Your task to perform on an android device: open a bookmark in the chrome app Image 0: 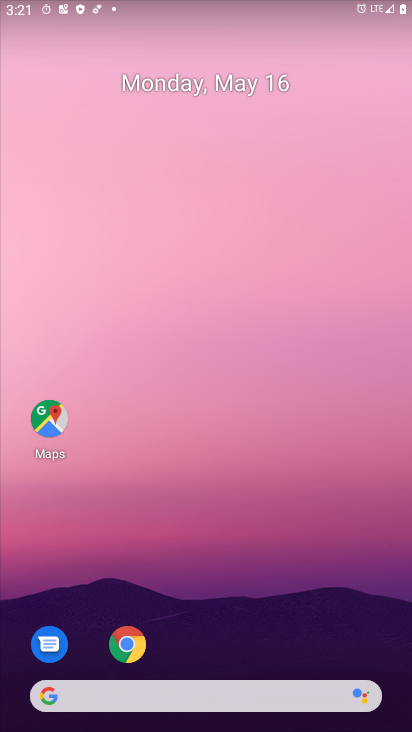
Step 0: drag from (208, 569) to (267, 131)
Your task to perform on an android device: open a bookmark in the chrome app Image 1: 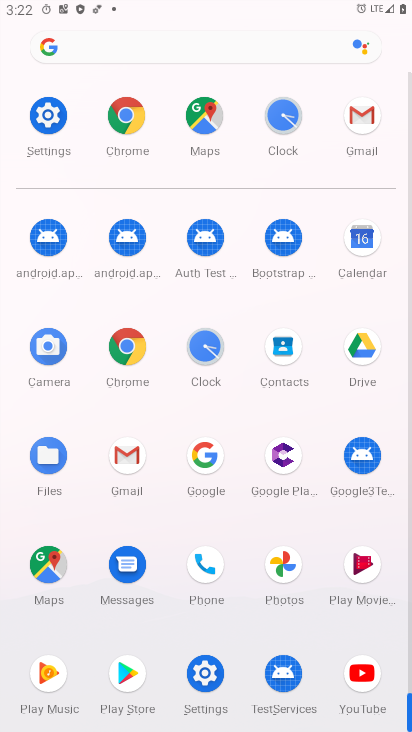
Step 1: click (141, 124)
Your task to perform on an android device: open a bookmark in the chrome app Image 2: 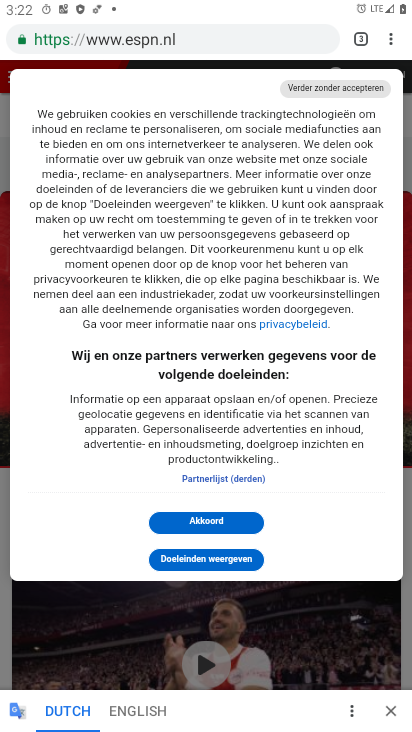
Step 2: click (389, 38)
Your task to perform on an android device: open a bookmark in the chrome app Image 3: 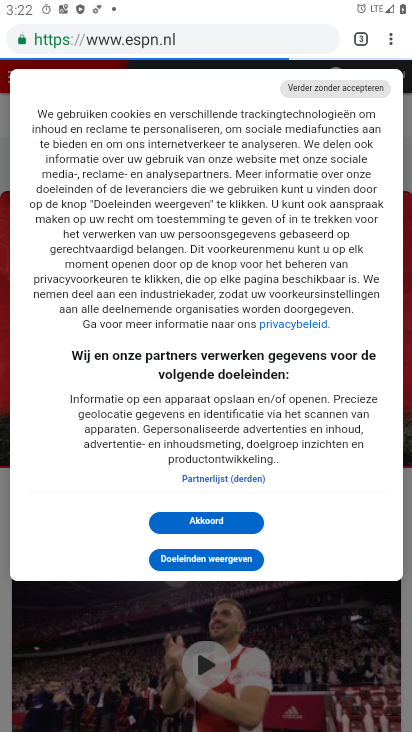
Step 3: click (399, 39)
Your task to perform on an android device: open a bookmark in the chrome app Image 4: 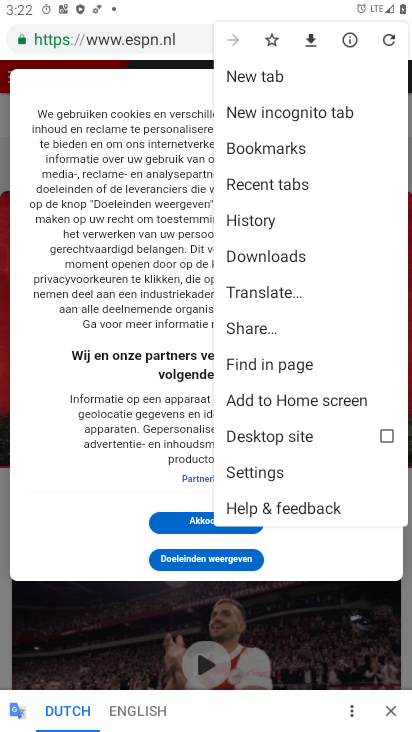
Step 4: click (287, 151)
Your task to perform on an android device: open a bookmark in the chrome app Image 5: 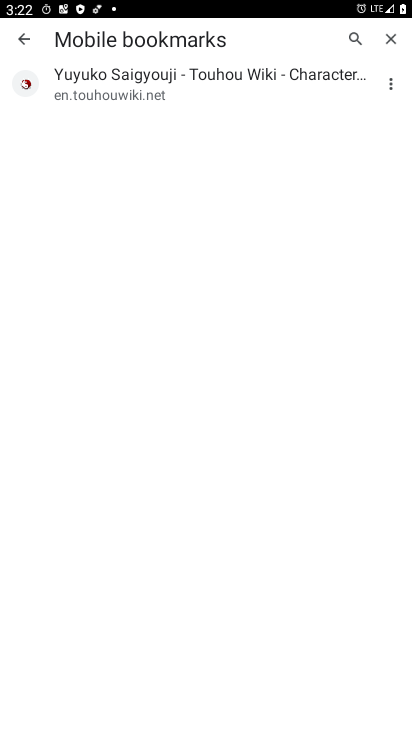
Step 5: click (234, 85)
Your task to perform on an android device: open a bookmark in the chrome app Image 6: 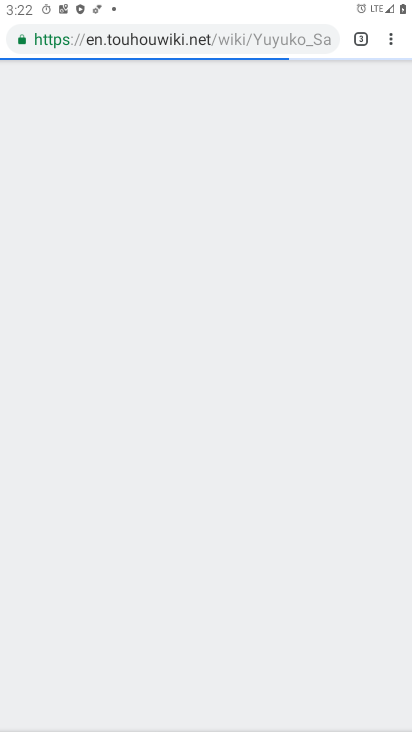
Step 6: click (145, 73)
Your task to perform on an android device: open a bookmark in the chrome app Image 7: 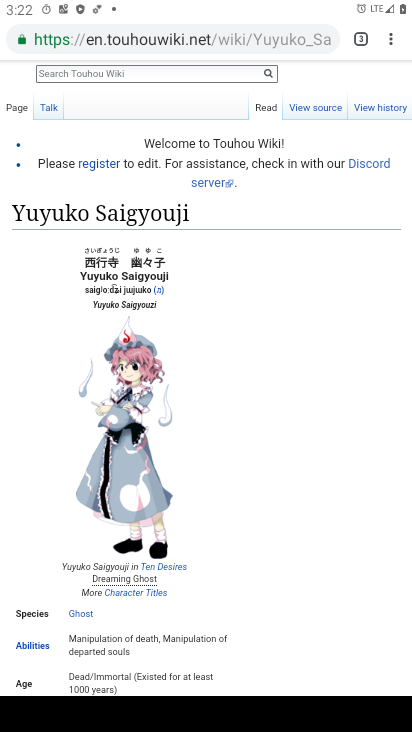
Step 7: task complete